Your task to perform on an android device: Add "usb-b" to the cart on amazon.com Image 0: 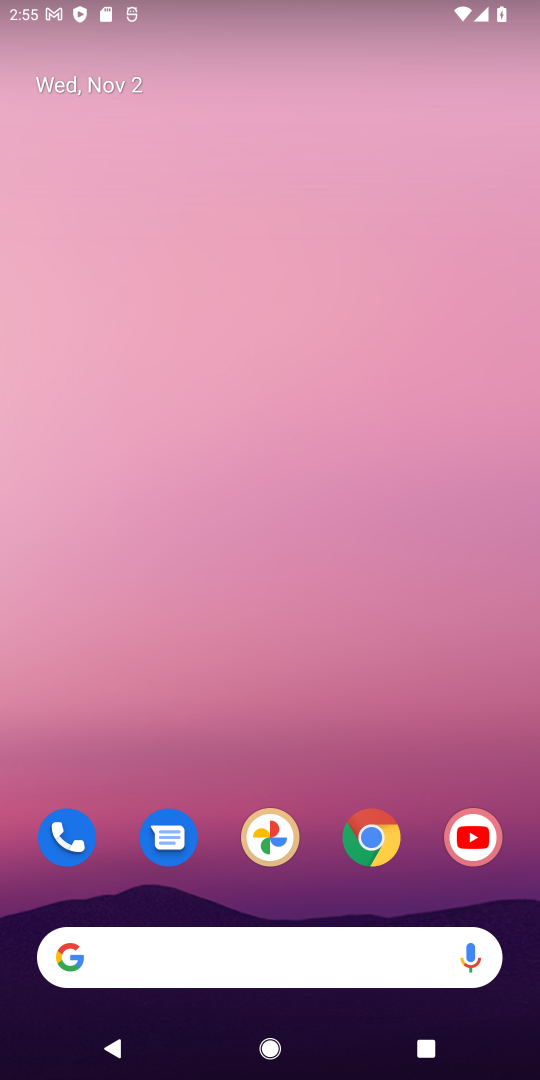
Step 0: drag from (317, 809) to (369, 41)
Your task to perform on an android device: Add "usb-b" to the cart on amazon.com Image 1: 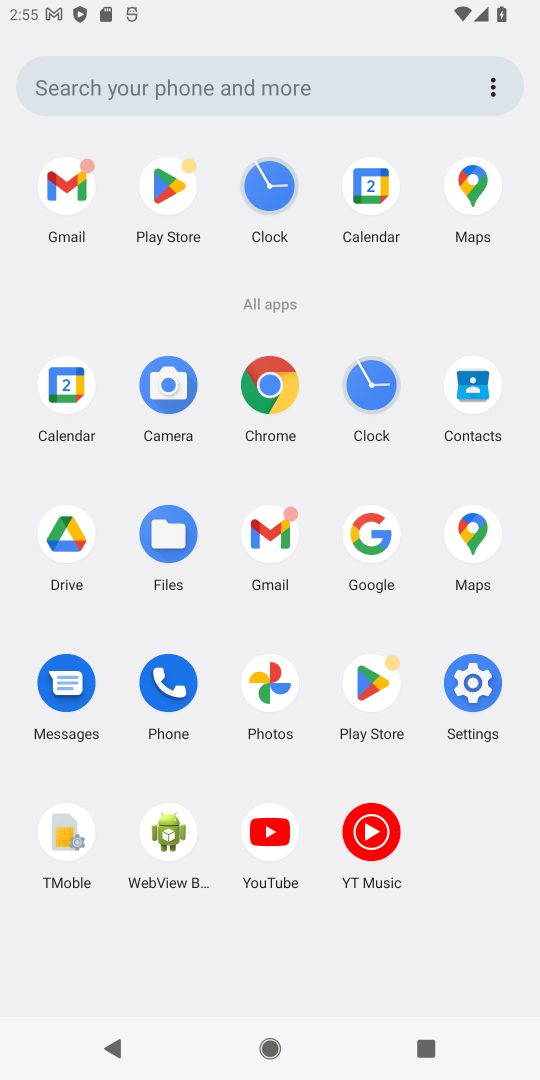
Step 1: click (264, 379)
Your task to perform on an android device: Add "usb-b" to the cart on amazon.com Image 2: 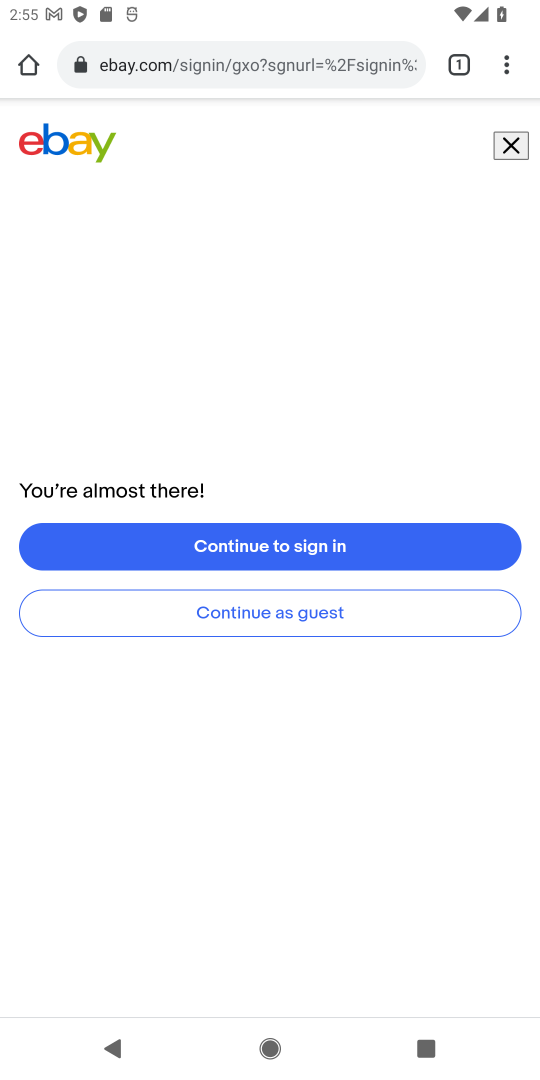
Step 2: click (149, 63)
Your task to perform on an android device: Add "usb-b" to the cart on amazon.com Image 3: 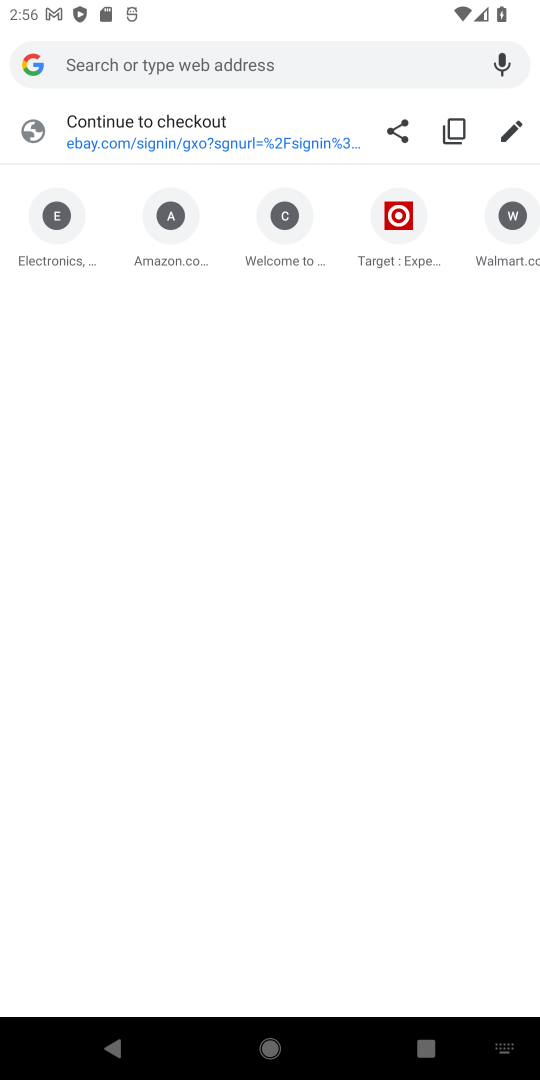
Step 3: type "amazon"
Your task to perform on an android device: Add "usb-b" to the cart on amazon.com Image 4: 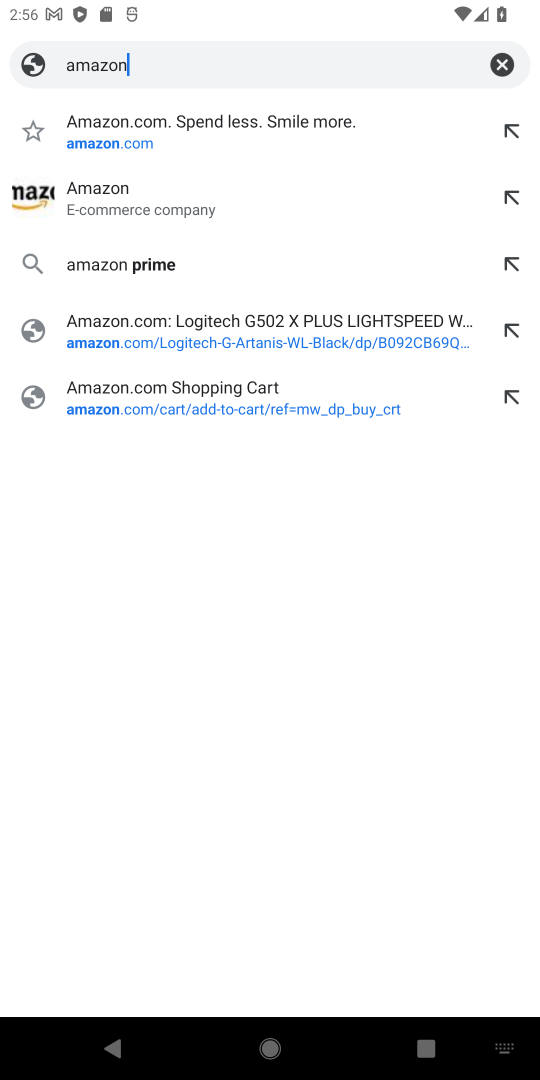
Step 4: click (175, 137)
Your task to perform on an android device: Add "usb-b" to the cart on amazon.com Image 5: 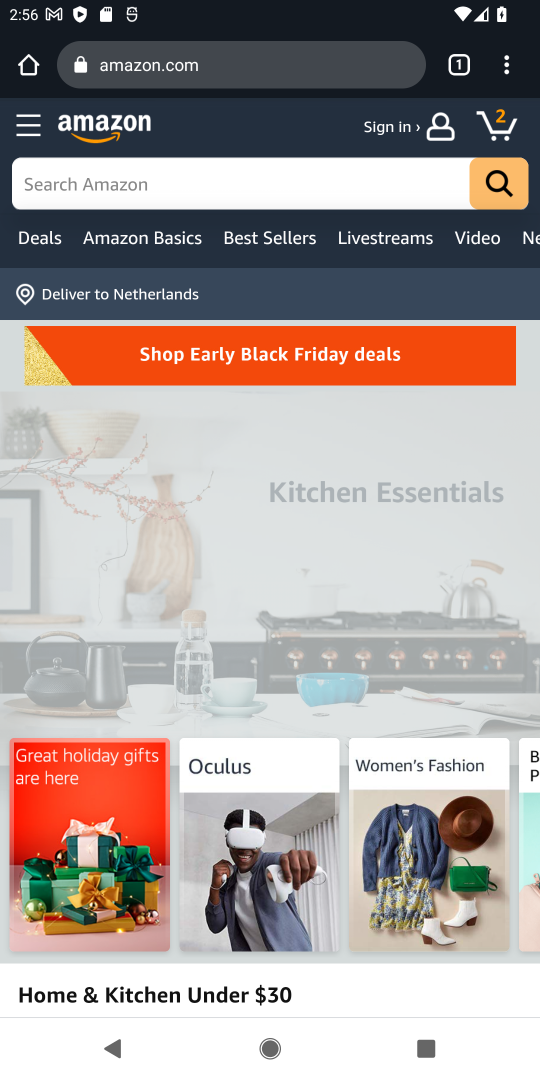
Step 5: click (157, 179)
Your task to perform on an android device: Add "usb-b" to the cart on amazon.com Image 6: 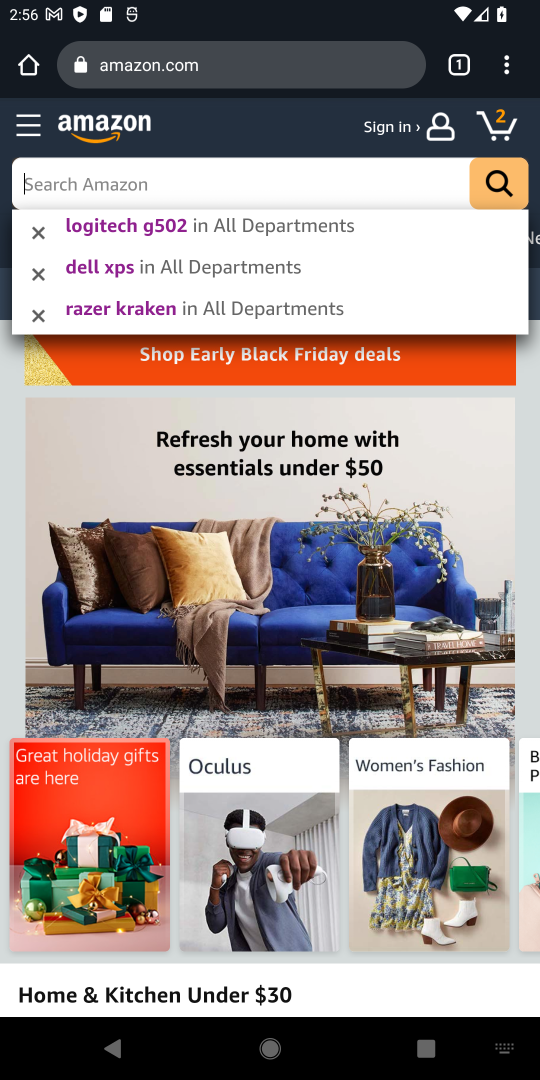
Step 6: type "usb-b"
Your task to perform on an android device: Add "usb-b" to the cart on amazon.com Image 7: 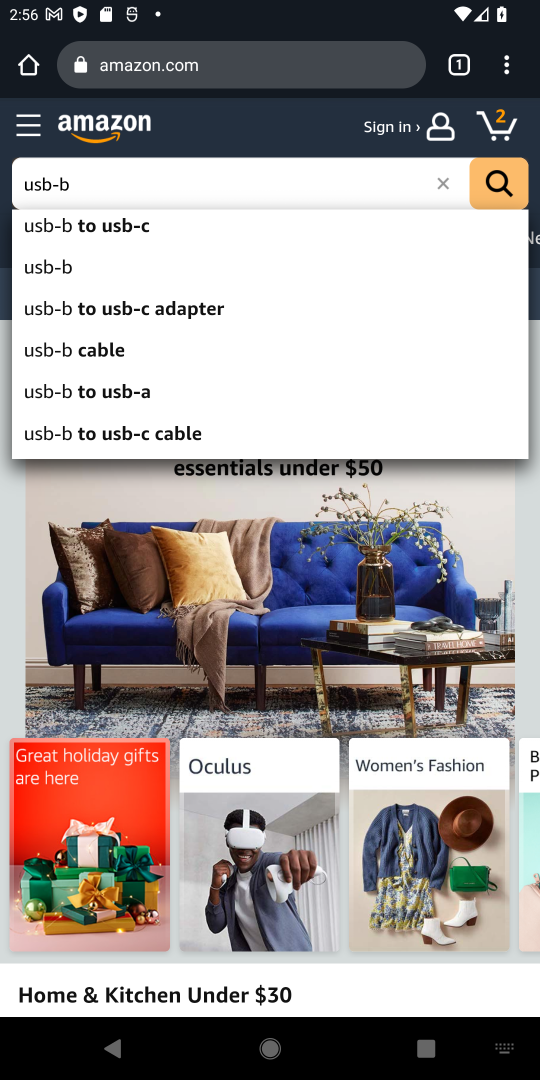
Step 7: click (66, 267)
Your task to perform on an android device: Add "usb-b" to the cart on amazon.com Image 8: 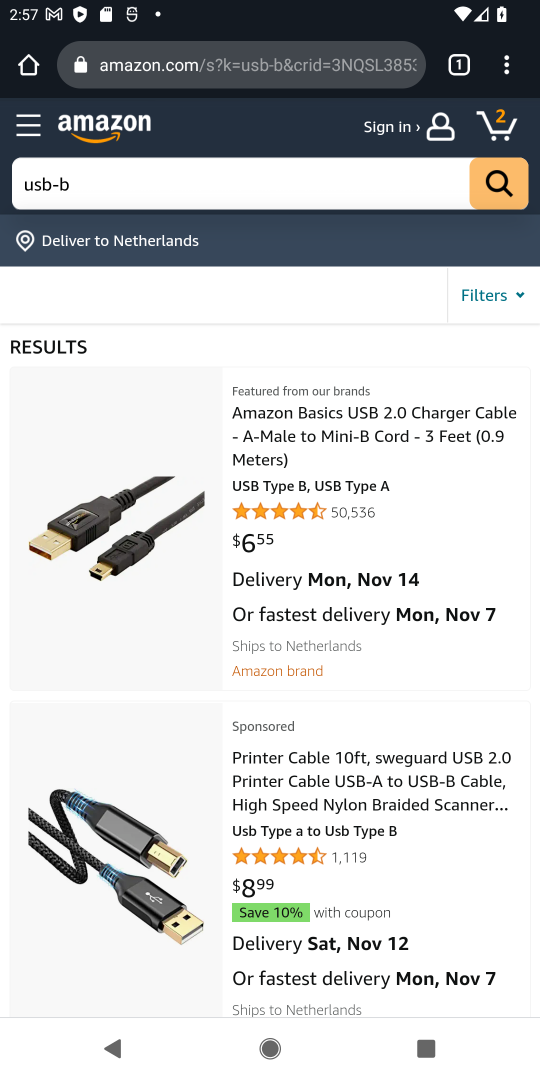
Step 8: click (285, 792)
Your task to perform on an android device: Add "usb-b" to the cart on amazon.com Image 9: 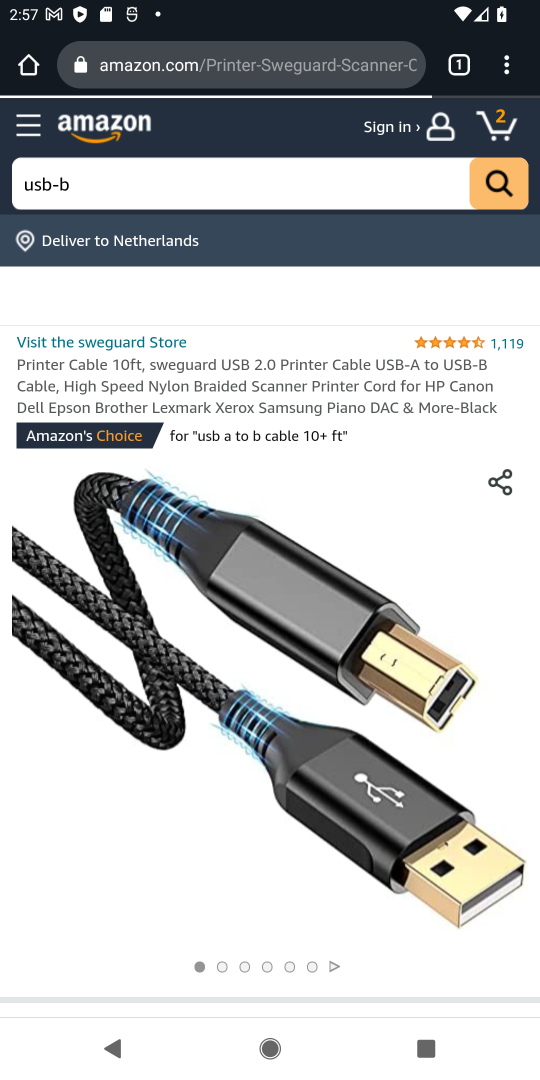
Step 9: drag from (316, 916) to (374, 509)
Your task to perform on an android device: Add "usb-b" to the cart on amazon.com Image 10: 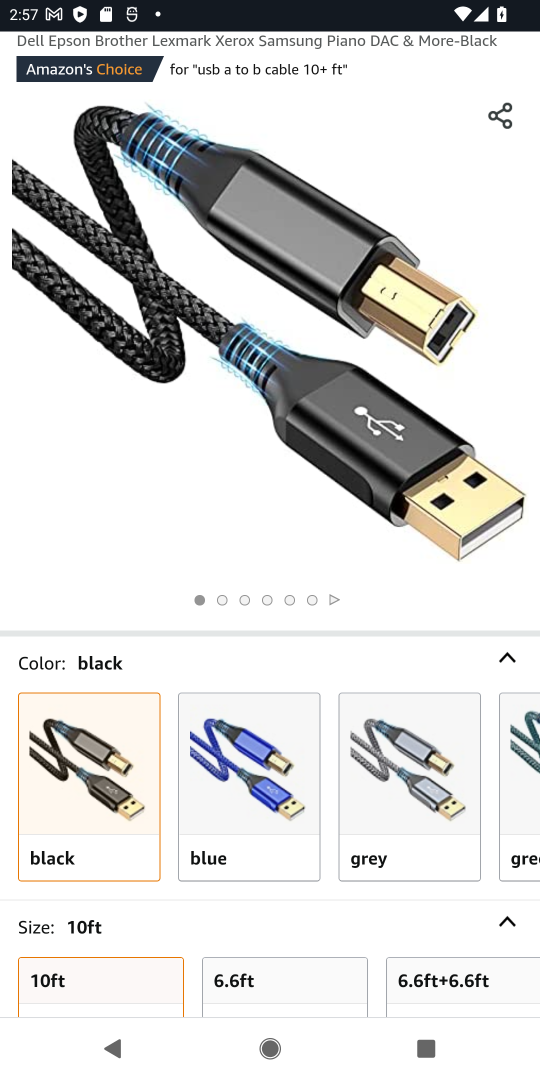
Step 10: drag from (295, 917) to (339, 478)
Your task to perform on an android device: Add "usb-b" to the cart on amazon.com Image 11: 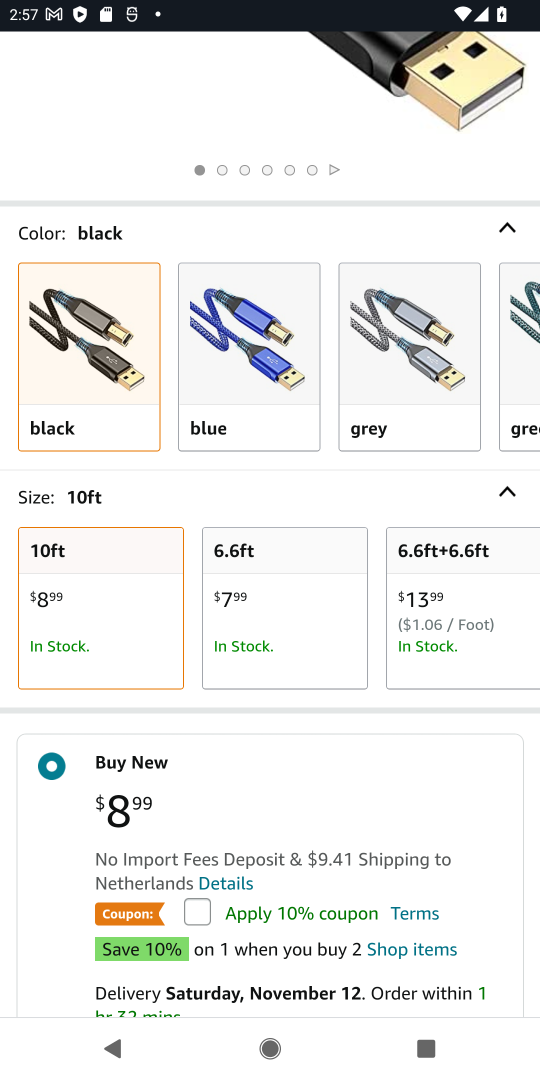
Step 11: drag from (470, 905) to (485, 310)
Your task to perform on an android device: Add "usb-b" to the cart on amazon.com Image 12: 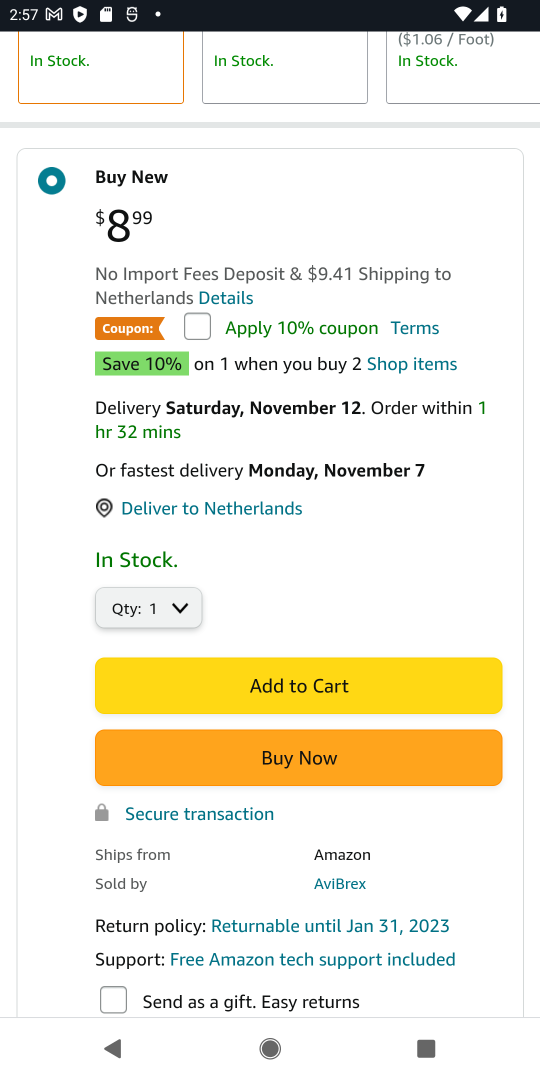
Step 12: click (296, 690)
Your task to perform on an android device: Add "usb-b" to the cart on amazon.com Image 13: 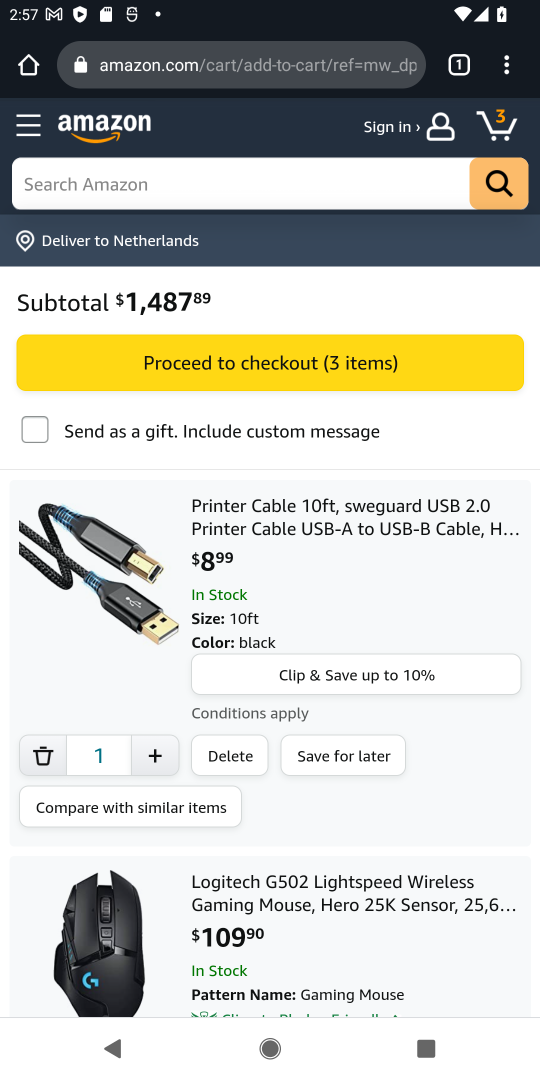
Step 13: task complete